Your task to perform on an android device: search for starred emails in the gmail app Image 0: 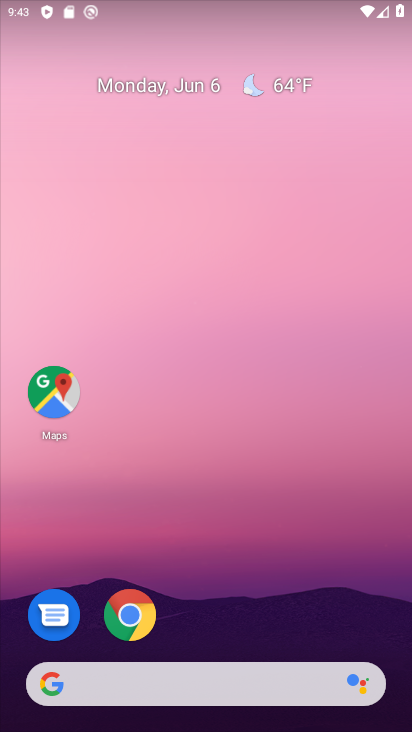
Step 0: drag from (232, 608) to (286, 93)
Your task to perform on an android device: search for starred emails in the gmail app Image 1: 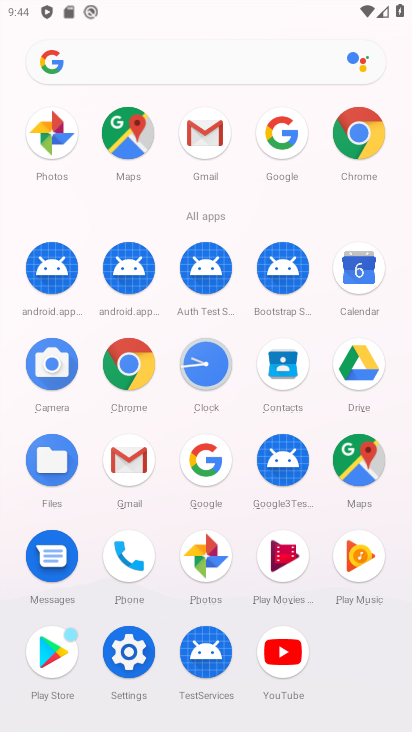
Step 1: click (204, 133)
Your task to perform on an android device: search for starred emails in the gmail app Image 2: 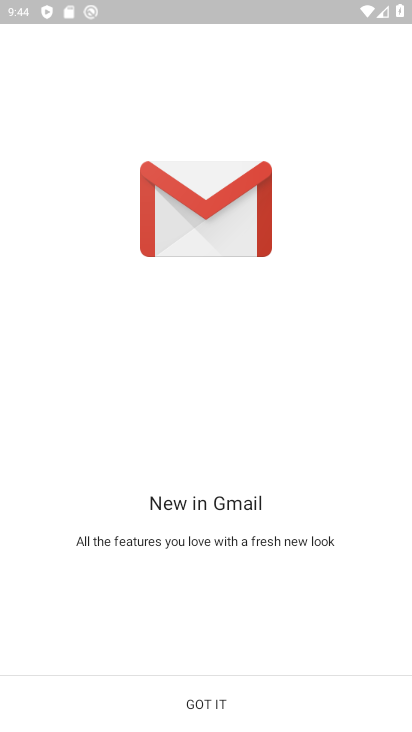
Step 2: click (207, 692)
Your task to perform on an android device: search for starred emails in the gmail app Image 3: 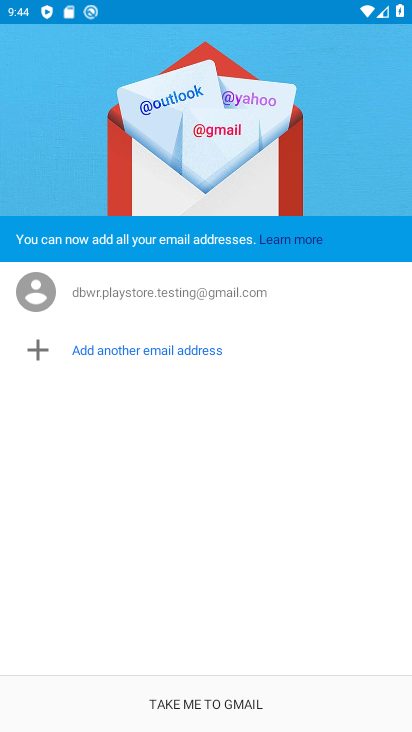
Step 3: click (199, 719)
Your task to perform on an android device: search for starred emails in the gmail app Image 4: 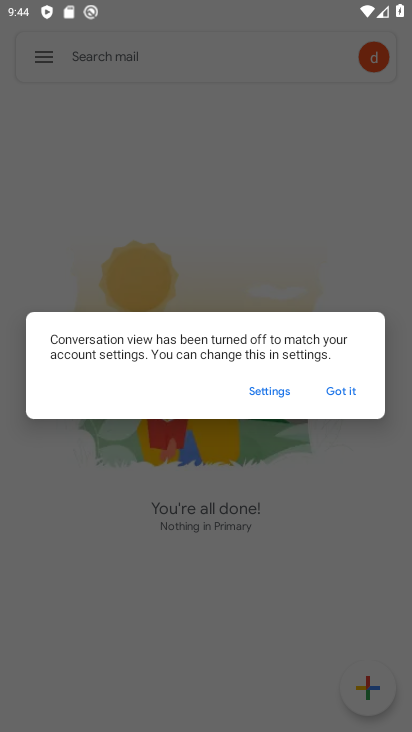
Step 4: click (328, 393)
Your task to perform on an android device: search for starred emails in the gmail app Image 5: 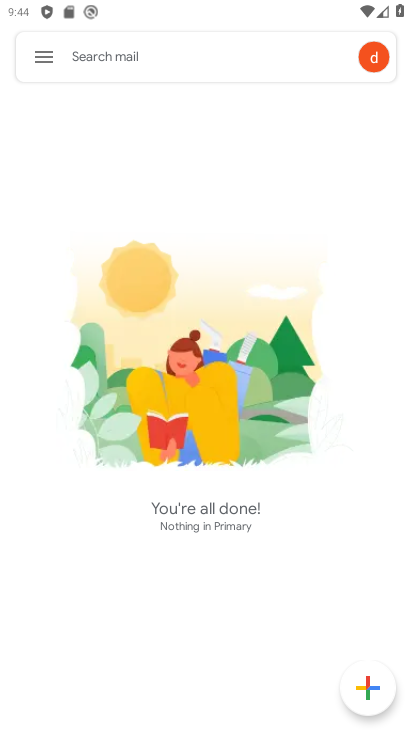
Step 5: click (40, 53)
Your task to perform on an android device: search for starred emails in the gmail app Image 6: 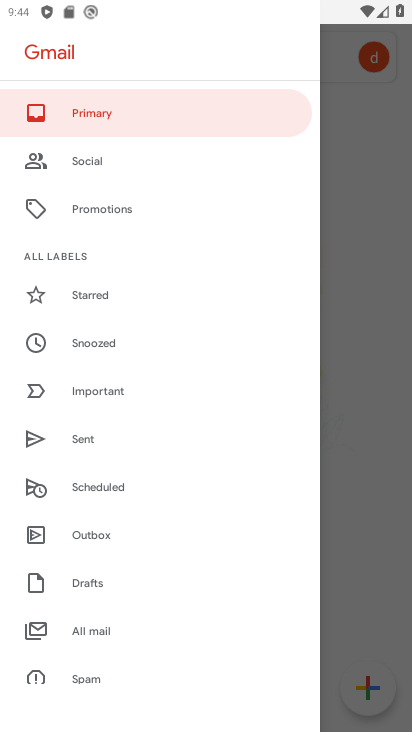
Step 6: click (99, 299)
Your task to perform on an android device: search for starred emails in the gmail app Image 7: 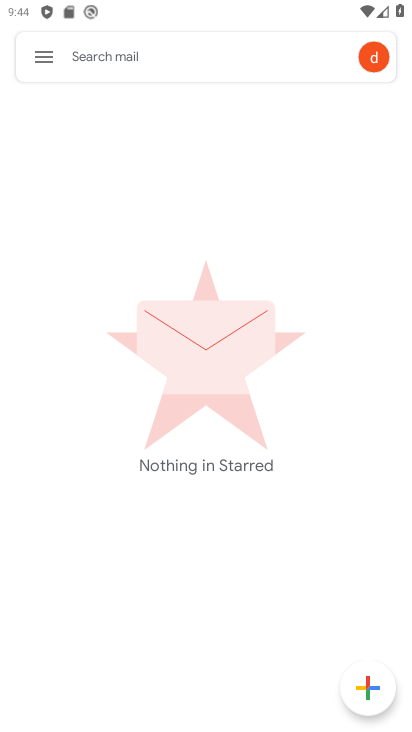
Step 7: task complete